Your task to perform on an android device: empty trash in google photos Image 0: 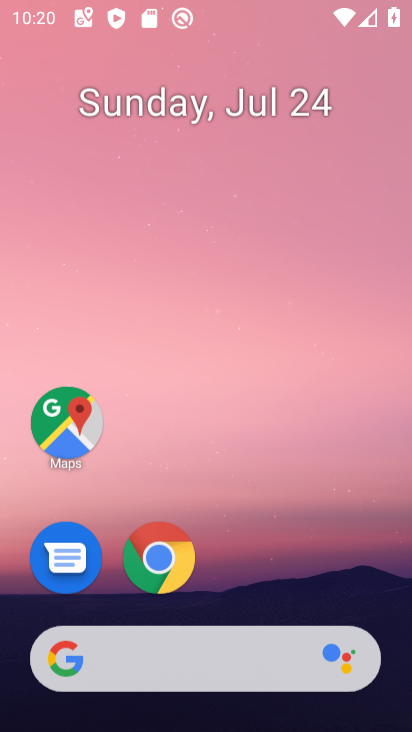
Step 0: click (328, 1)
Your task to perform on an android device: empty trash in google photos Image 1: 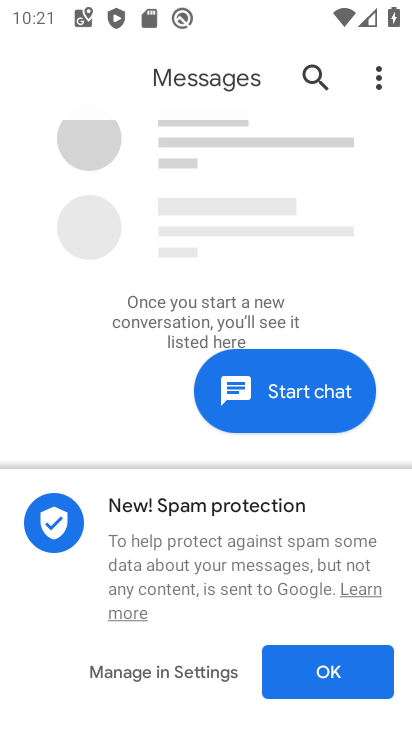
Step 1: press back button
Your task to perform on an android device: empty trash in google photos Image 2: 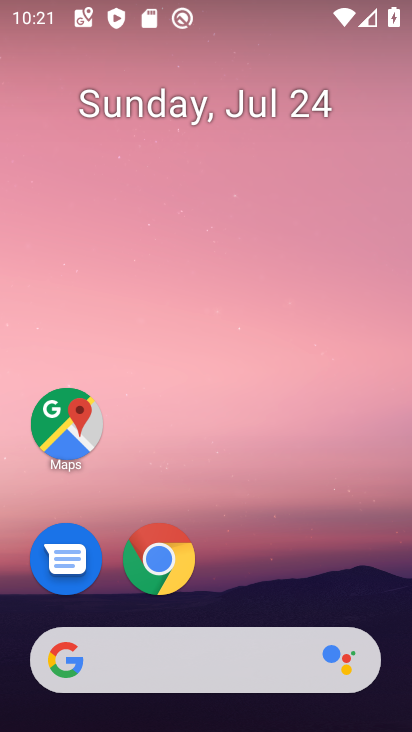
Step 2: drag from (251, 565) to (317, 5)
Your task to perform on an android device: empty trash in google photos Image 3: 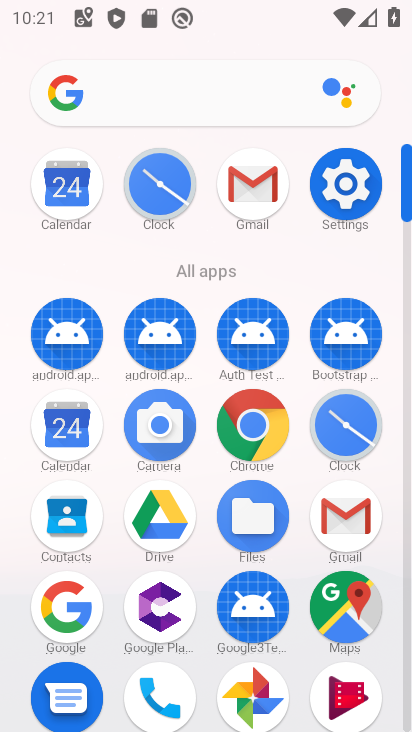
Step 3: click (260, 708)
Your task to perform on an android device: empty trash in google photos Image 4: 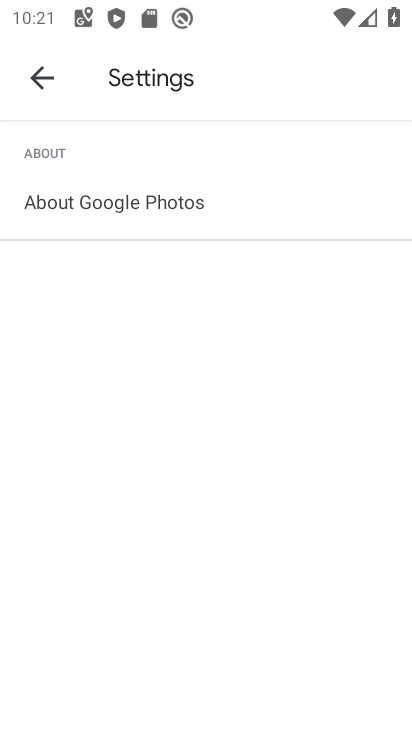
Step 4: click (47, 69)
Your task to perform on an android device: empty trash in google photos Image 5: 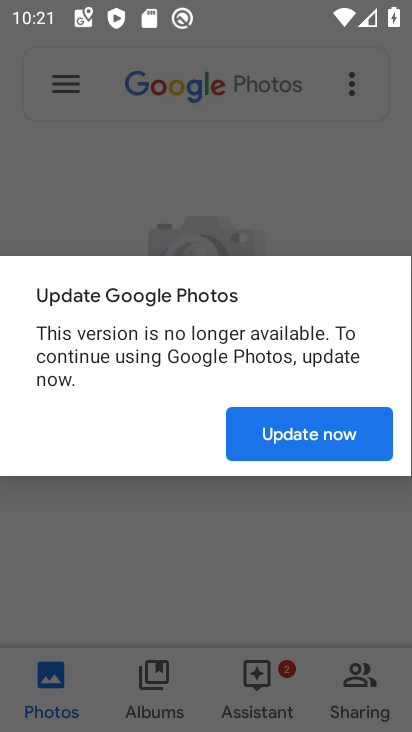
Step 5: click (291, 443)
Your task to perform on an android device: empty trash in google photos Image 6: 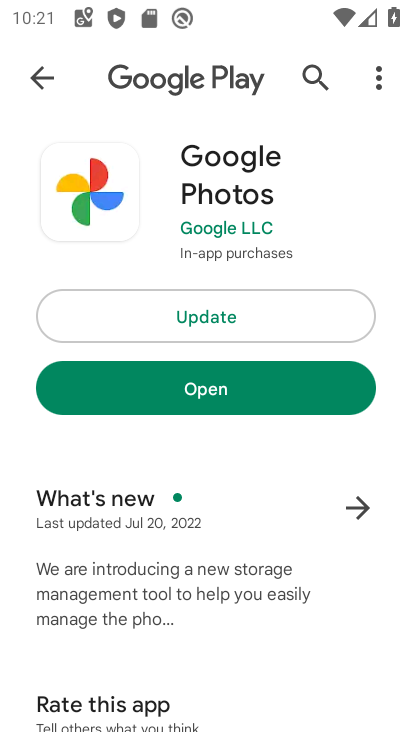
Step 6: press back button
Your task to perform on an android device: empty trash in google photos Image 7: 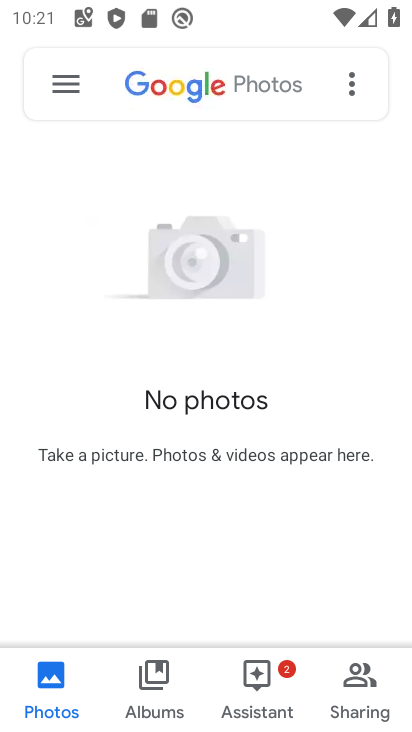
Step 7: click (63, 83)
Your task to perform on an android device: empty trash in google photos Image 8: 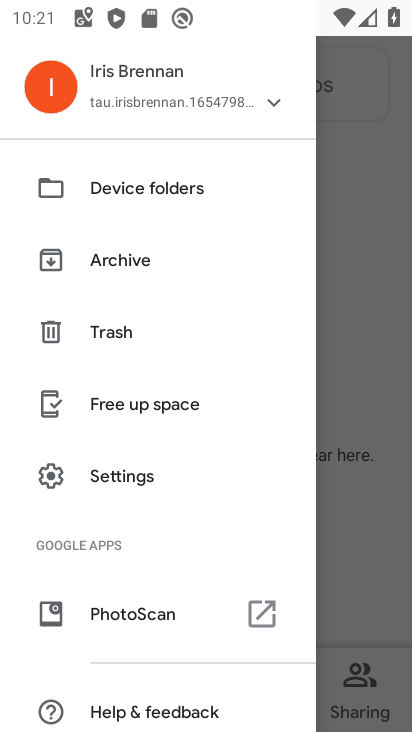
Step 8: click (112, 333)
Your task to perform on an android device: empty trash in google photos Image 9: 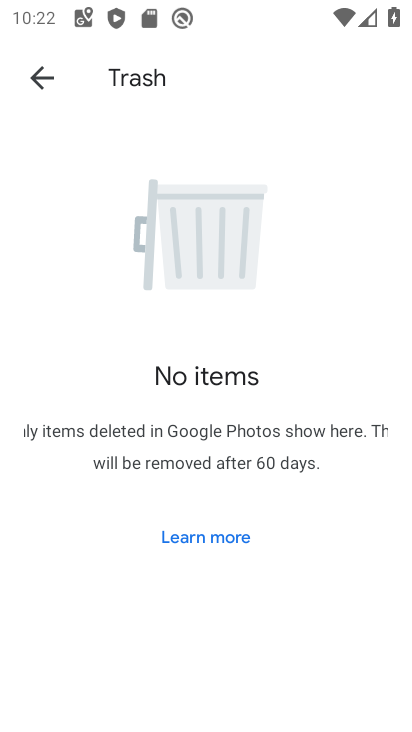
Step 9: task complete